Your task to perform on an android device: read, delete, or share a saved page in the chrome app Image 0: 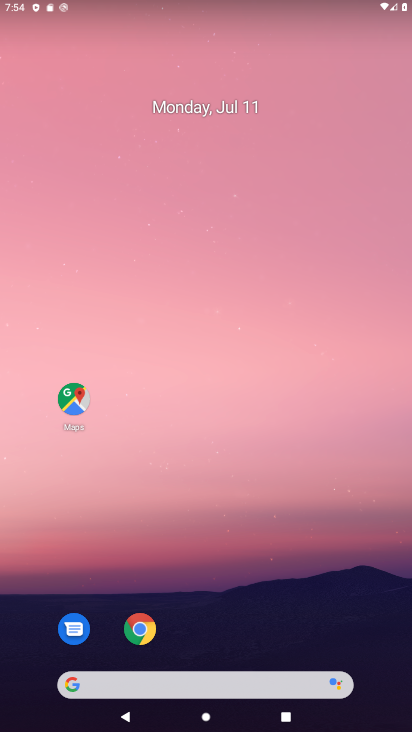
Step 0: click (140, 629)
Your task to perform on an android device: read, delete, or share a saved page in the chrome app Image 1: 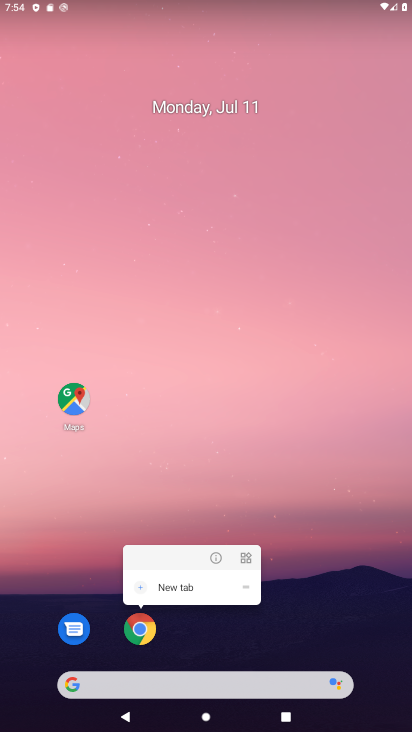
Step 1: click (142, 630)
Your task to perform on an android device: read, delete, or share a saved page in the chrome app Image 2: 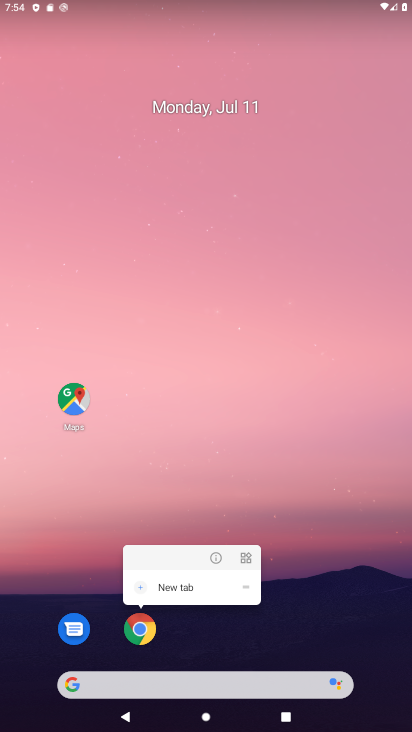
Step 2: click (142, 630)
Your task to perform on an android device: read, delete, or share a saved page in the chrome app Image 3: 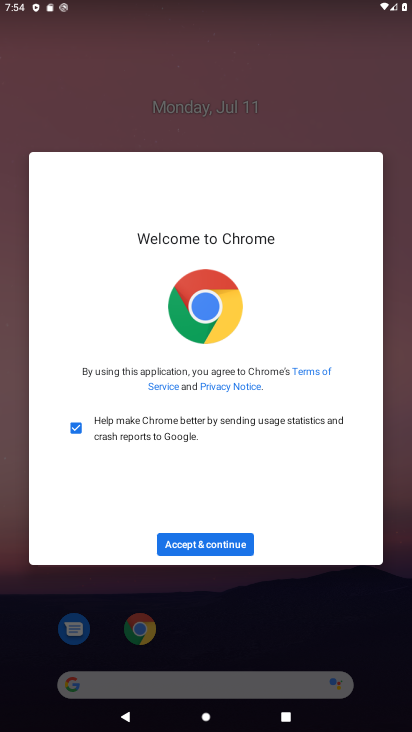
Step 3: click (195, 545)
Your task to perform on an android device: read, delete, or share a saved page in the chrome app Image 4: 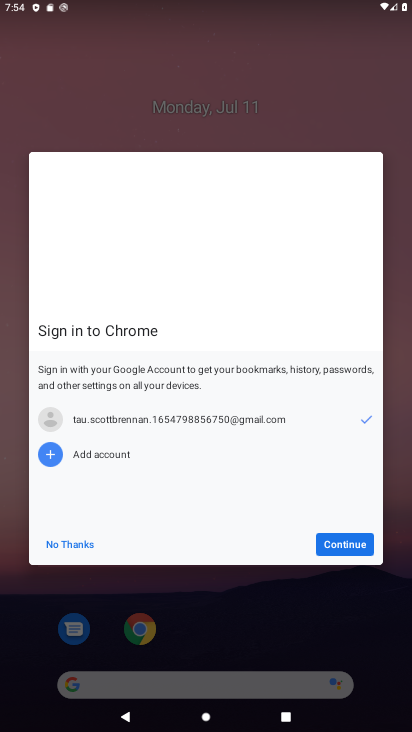
Step 4: click (351, 547)
Your task to perform on an android device: read, delete, or share a saved page in the chrome app Image 5: 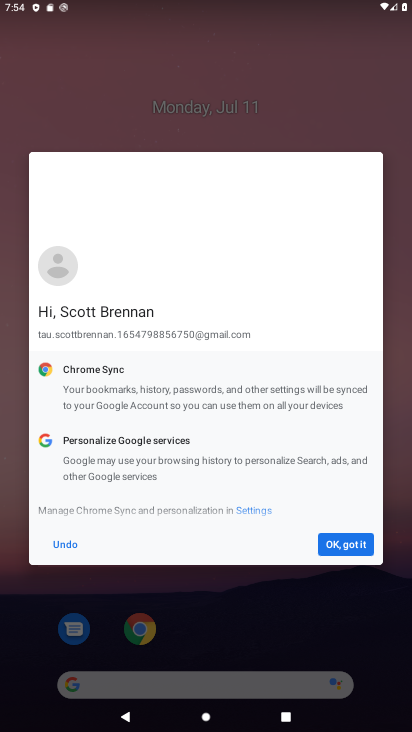
Step 5: click (351, 547)
Your task to perform on an android device: read, delete, or share a saved page in the chrome app Image 6: 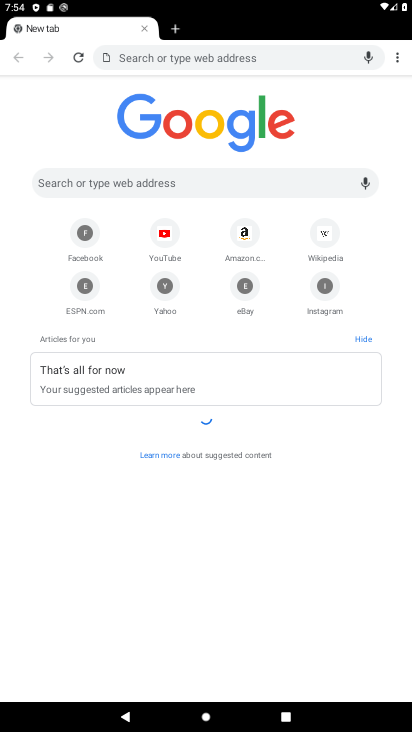
Step 6: click (393, 59)
Your task to perform on an android device: read, delete, or share a saved page in the chrome app Image 7: 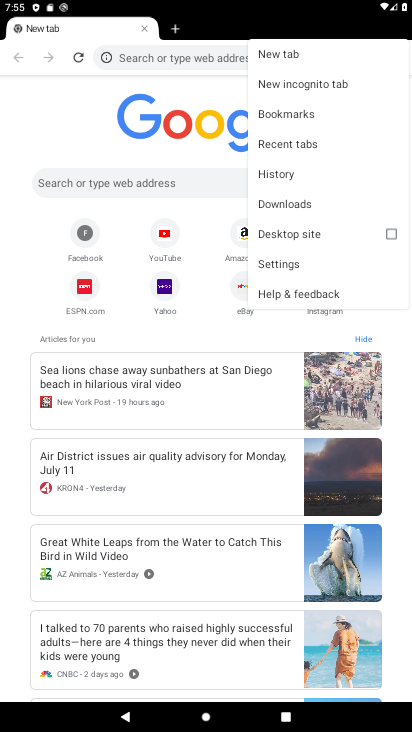
Step 7: click (287, 195)
Your task to perform on an android device: read, delete, or share a saved page in the chrome app Image 8: 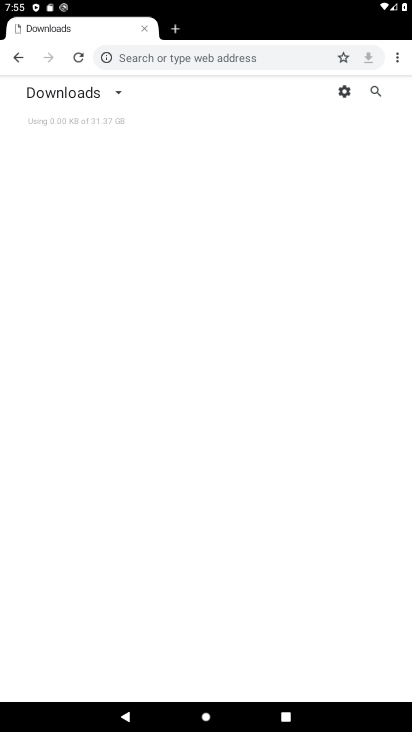
Step 8: task complete